Your task to perform on an android device: toggle wifi Image 0: 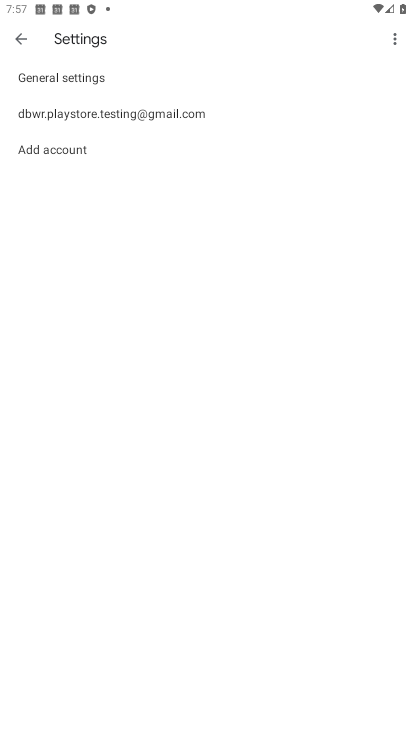
Step 0: press home button
Your task to perform on an android device: toggle wifi Image 1: 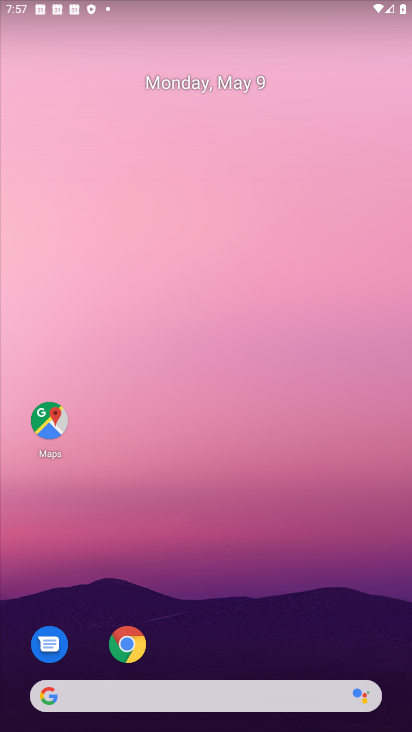
Step 1: drag from (217, 646) to (249, 252)
Your task to perform on an android device: toggle wifi Image 2: 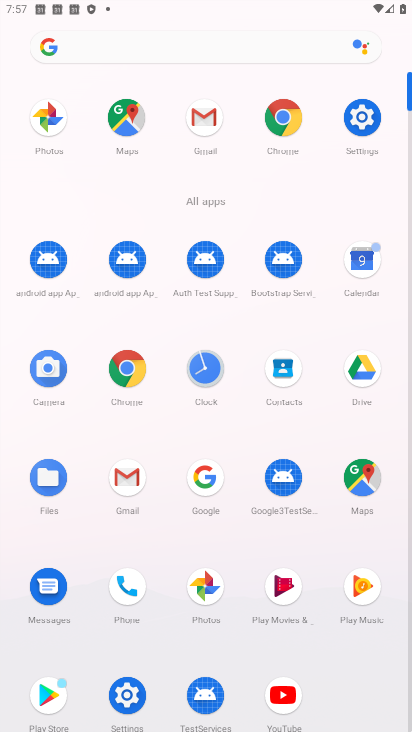
Step 2: click (370, 120)
Your task to perform on an android device: toggle wifi Image 3: 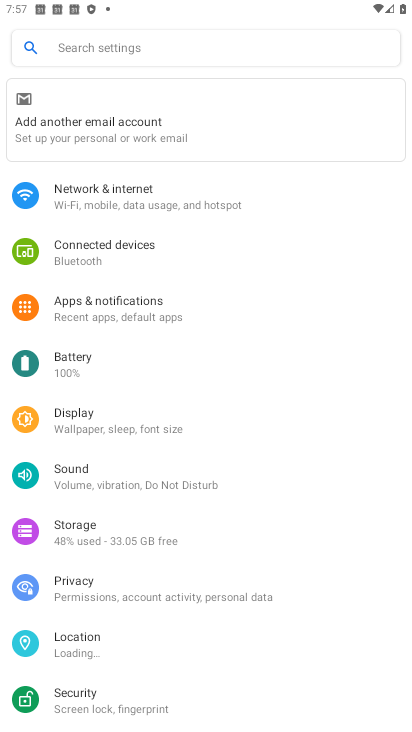
Step 3: click (117, 186)
Your task to perform on an android device: toggle wifi Image 4: 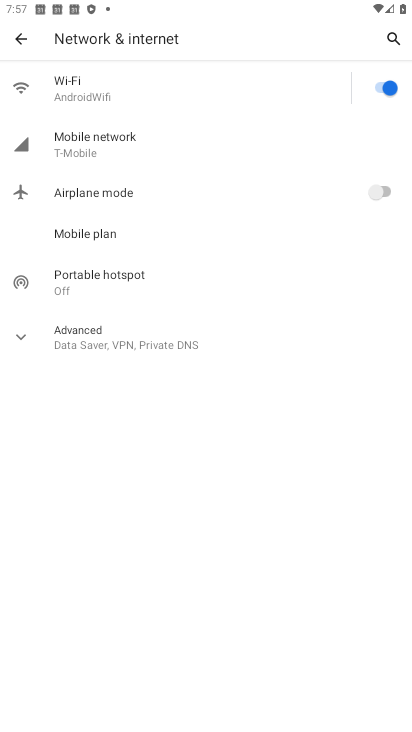
Step 4: click (379, 86)
Your task to perform on an android device: toggle wifi Image 5: 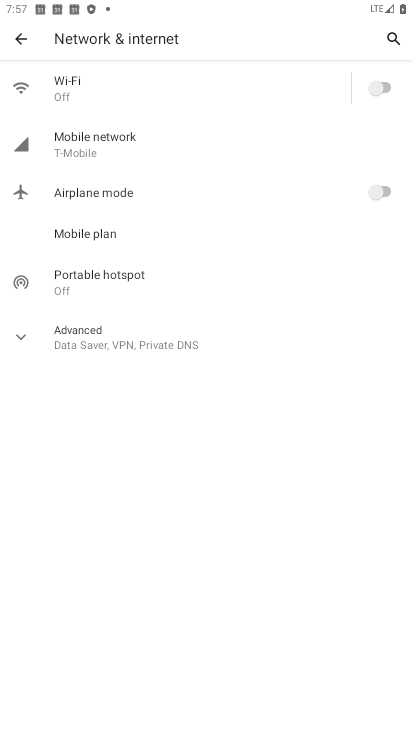
Step 5: task complete